Your task to perform on an android device: Search for Italian restaurants on Maps Image 0: 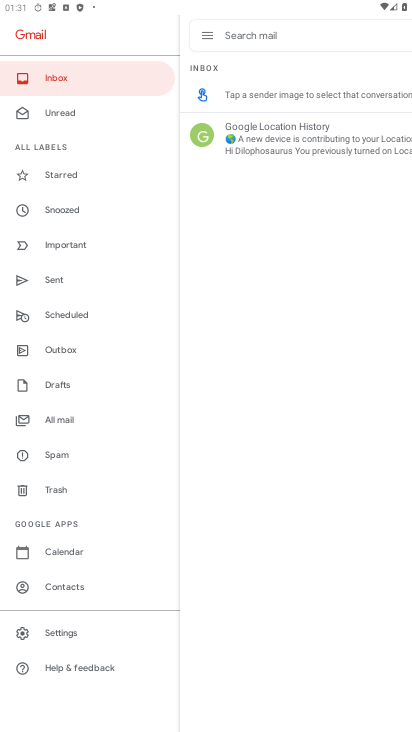
Step 0: press home button
Your task to perform on an android device: Search for Italian restaurants on Maps Image 1: 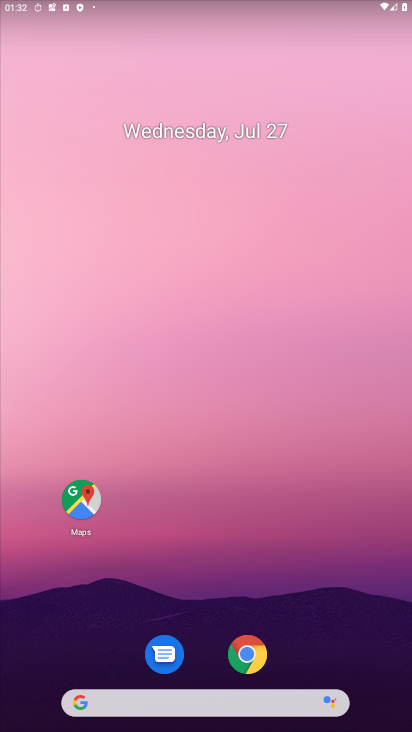
Step 1: drag from (269, 639) to (310, 215)
Your task to perform on an android device: Search for Italian restaurants on Maps Image 2: 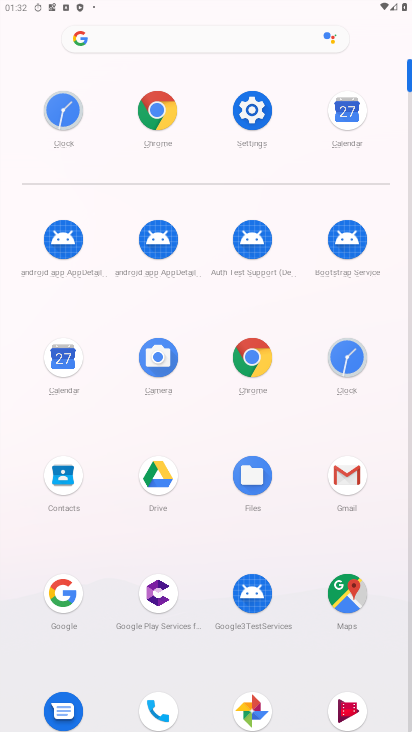
Step 2: click (349, 579)
Your task to perform on an android device: Search for Italian restaurants on Maps Image 3: 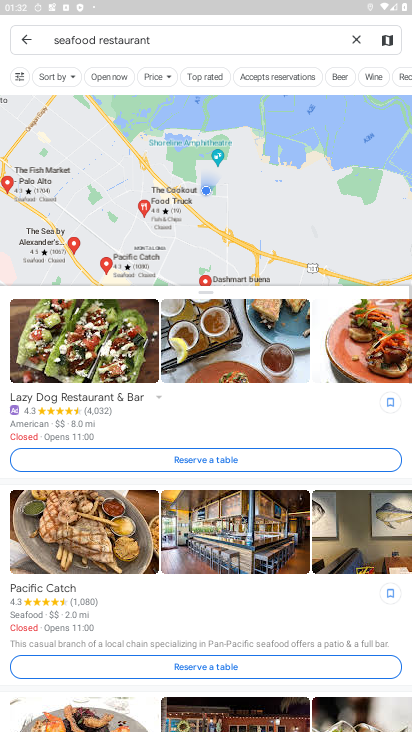
Step 3: press back button
Your task to perform on an android device: Search for Italian restaurants on Maps Image 4: 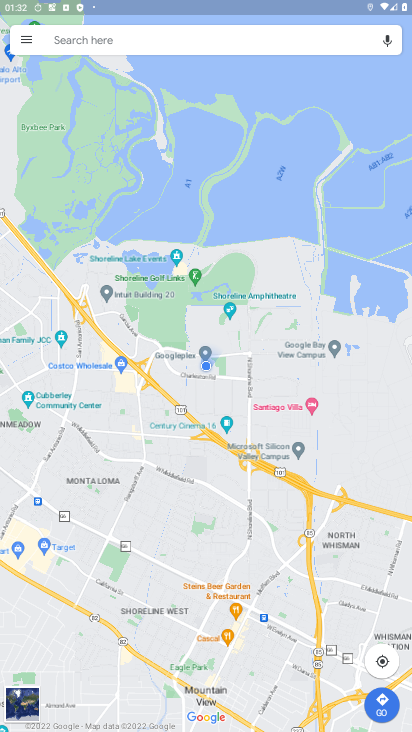
Step 4: click (141, 48)
Your task to perform on an android device: Search for Italian restaurants on Maps Image 5: 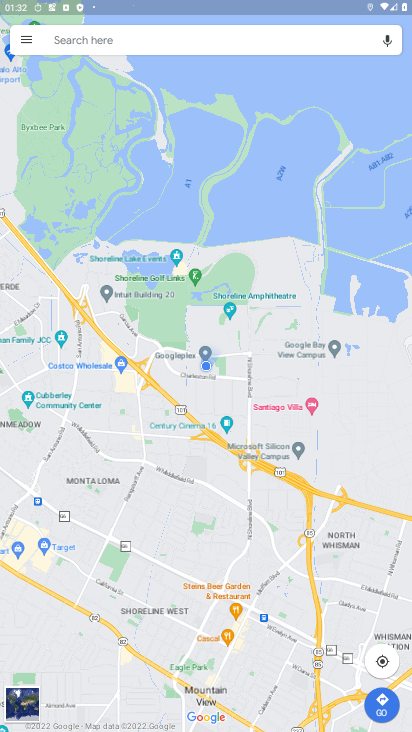
Step 5: click (141, 48)
Your task to perform on an android device: Search for Italian restaurants on Maps Image 6: 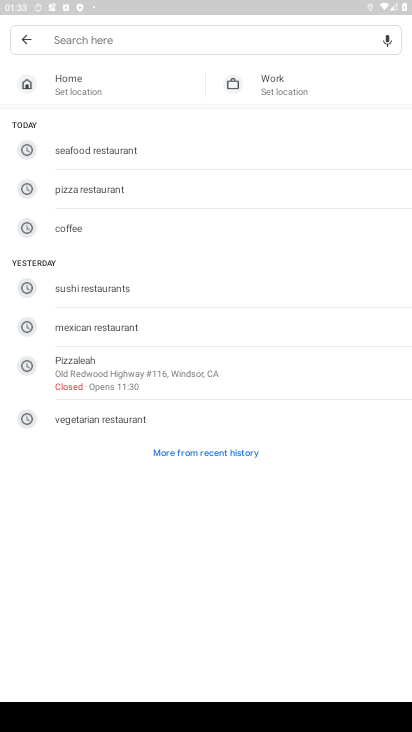
Step 6: type "italian res"
Your task to perform on an android device: Search for Italian restaurants on Maps Image 7: 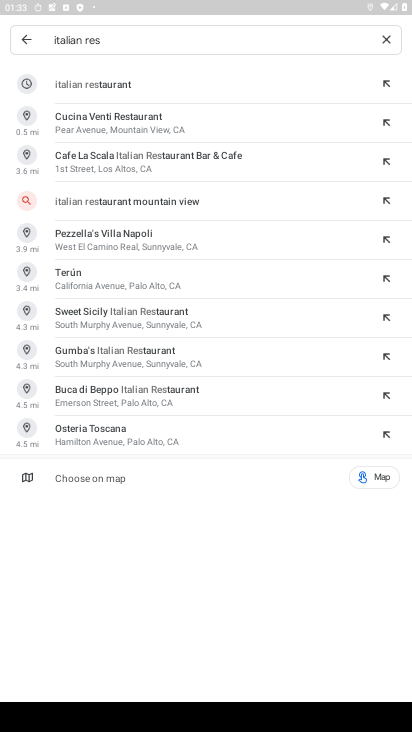
Step 7: click (320, 94)
Your task to perform on an android device: Search for Italian restaurants on Maps Image 8: 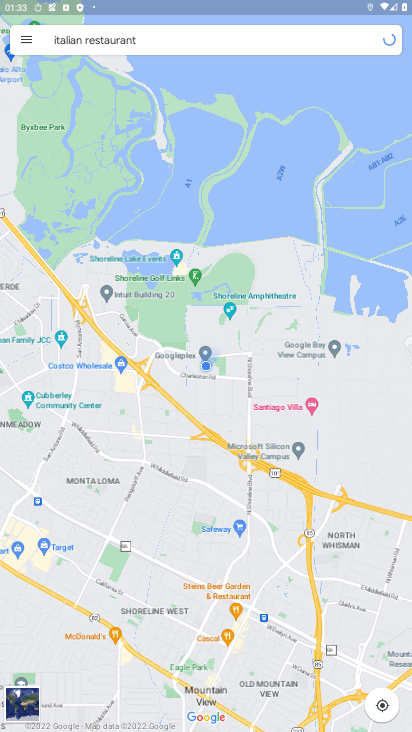
Step 8: task complete